Your task to perform on an android device: Go to wifi settings Image 0: 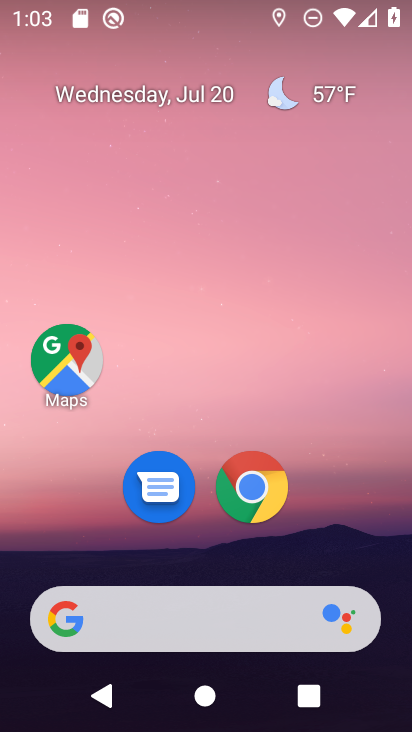
Step 0: drag from (356, 536) to (354, 110)
Your task to perform on an android device: Go to wifi settings Image 1: 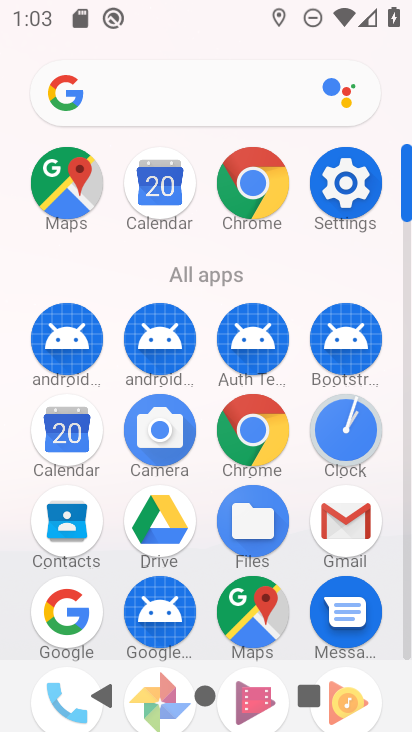
Step 1: click (349, 192)
Your task to perform on an android device: Go to wifi settings Image 2: 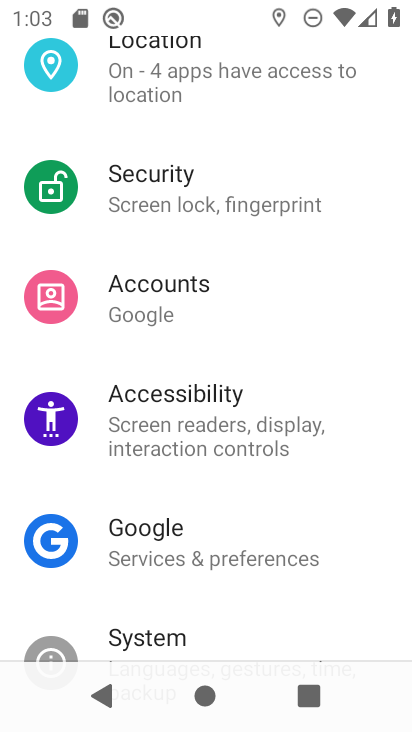
Step 2: drag from (354, 275) to (348, 354)
Your task to perform on an android device: Go to wifi settings Image 3: 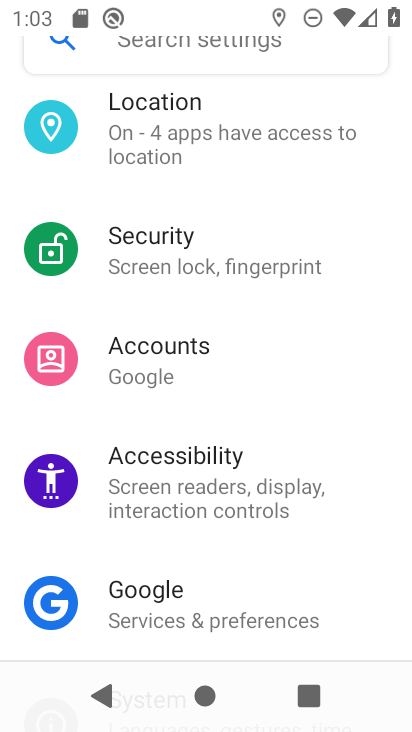
Step 3: drag from (355, 247) to (357, 381)
Your task to perform on an android device: Go to wifi settings Image 4: 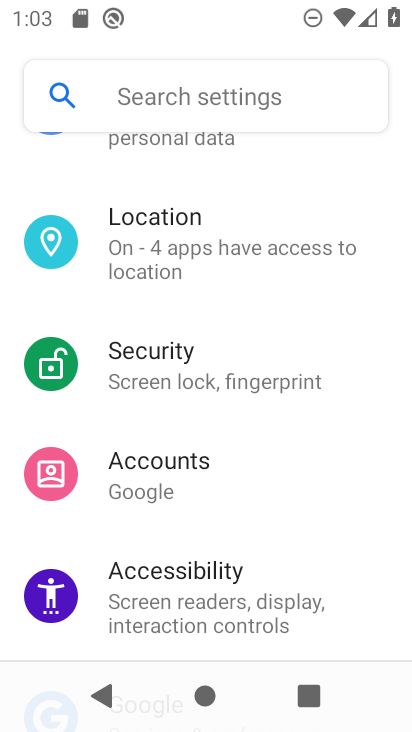
Step 4: drag from (358, 219) to (358, 348)
Your task to perform on an android device: Go to wifi settings Image 5: 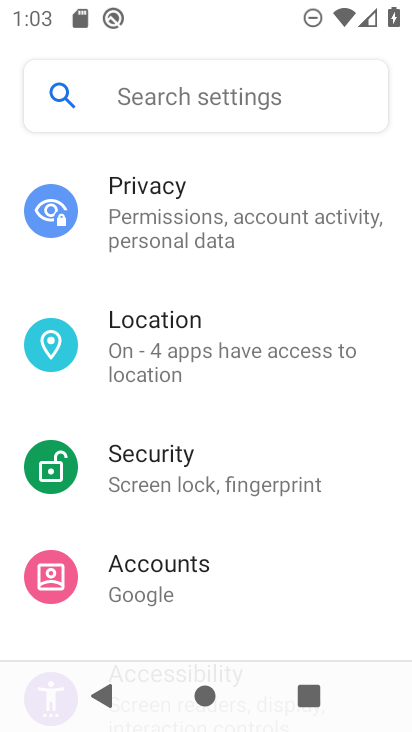
Step 5: drag from (359, 260) to (356, 380)
Your task to perform on an android device: Go to wifi settings Image 6: 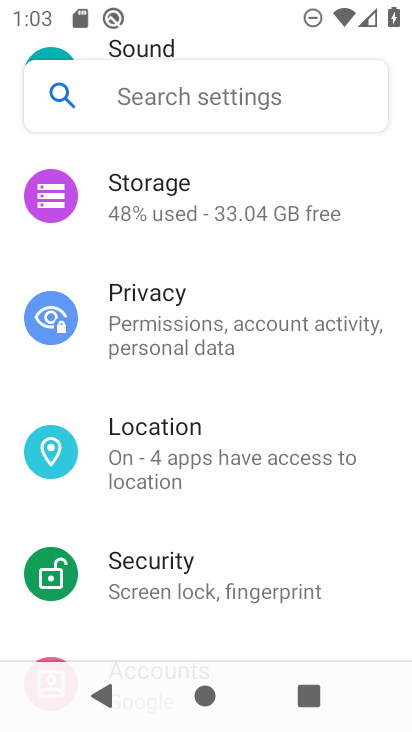
Step 6: drag from (356, 234) to (354, 353)
Your task to perform on an android device: Go to wifi settings Image 7: 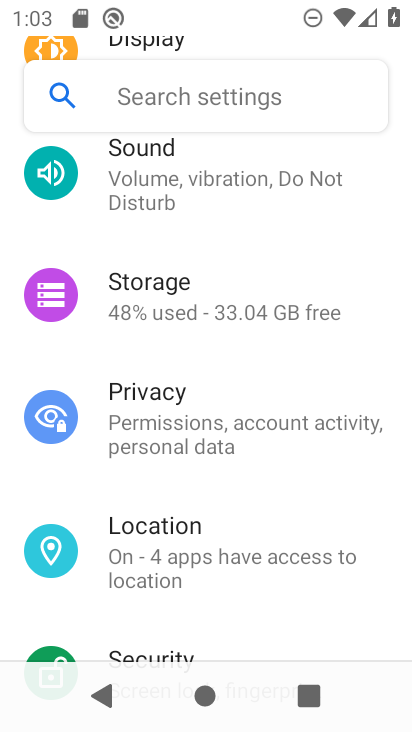
Step 7: drag from (352, 240) to (354, 339)
Your task to perform on an android device: Go to wifi settings Image 8: 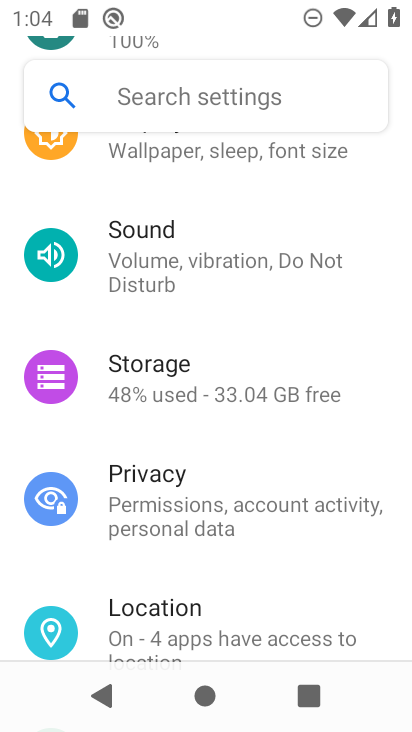
Step 8: drag from (357, 213) to (367, 359)
Your task to perform on an android device: Go to wifi settings Image 9: 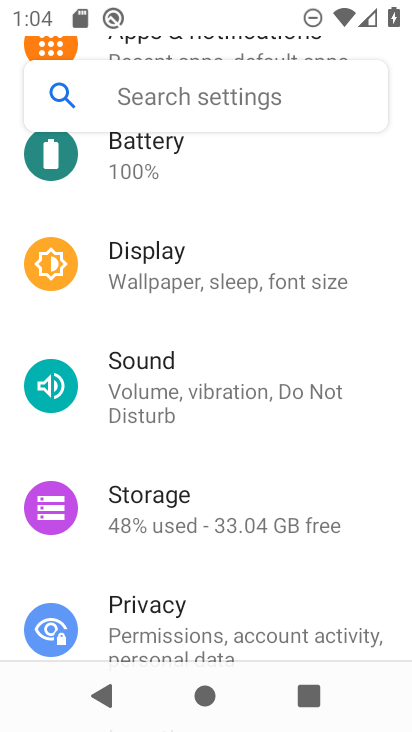
Step 9: drag from (369, 224) to (369, 355)
Your task to perform on an android device: Go to wifi settings Image 10: 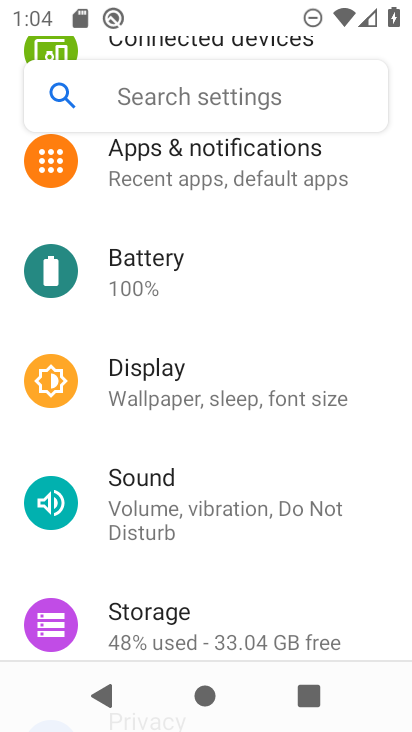
Step 10: drag from (369, 197) to (358, 338)
Your task to perform on an android device: Go to wifi settings Image 11: 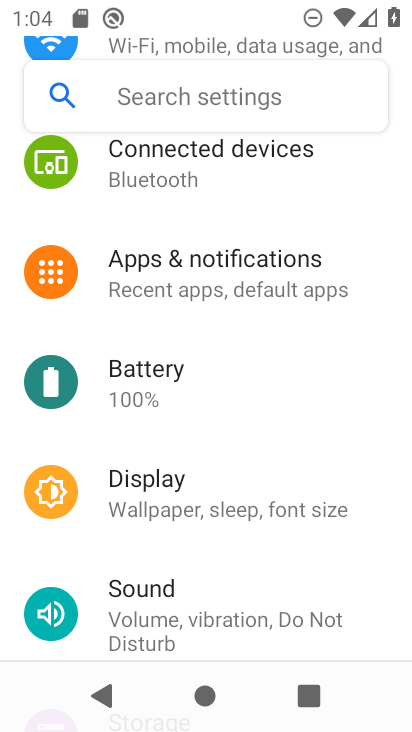
Step 11: drag from (356, 183) to (354, 324)
Your task to perform on an android device: Go to wifi settings Image 12: 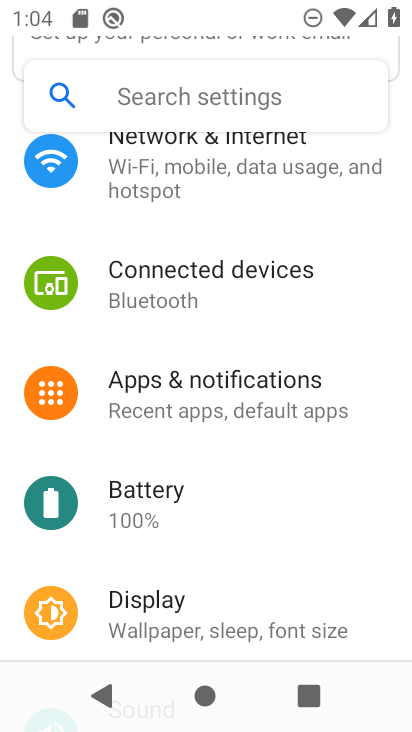
Step 12: drag from (349, 195) to (350, 351)
Your task to perform on an android device: Go to wifi settings Image 13: 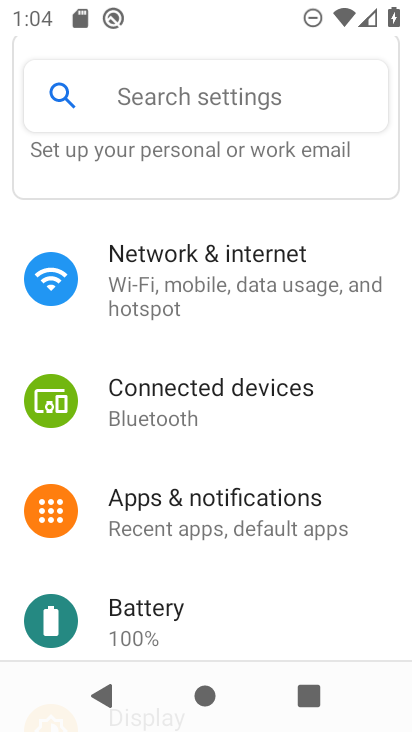
Step 13: click (293, 286)
Your task to perform on an android device: Go to wifi settings Image 14: 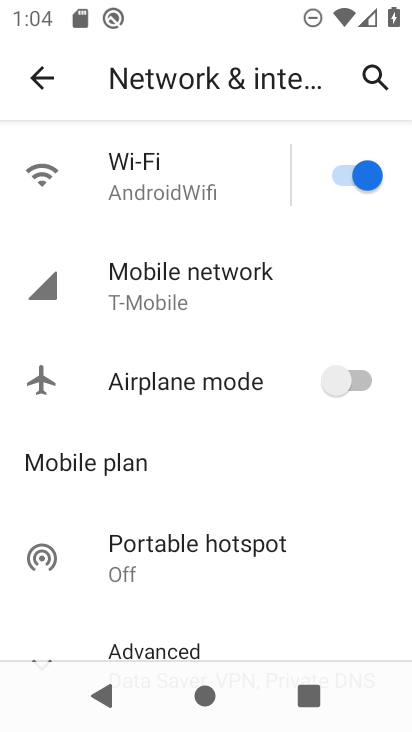
Step 14: click (143, 169)
Your task to perform on an android device: Go to wifi settings Image 15: 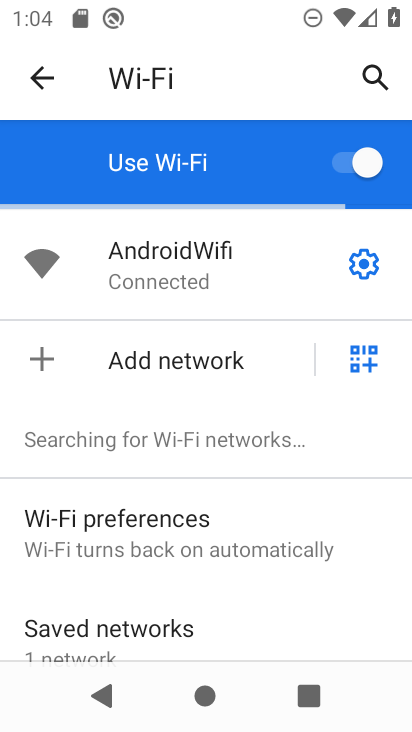
Step 15: task complete